Your task to perform on an android device: make emails show in primary in the gmail app Image 0: 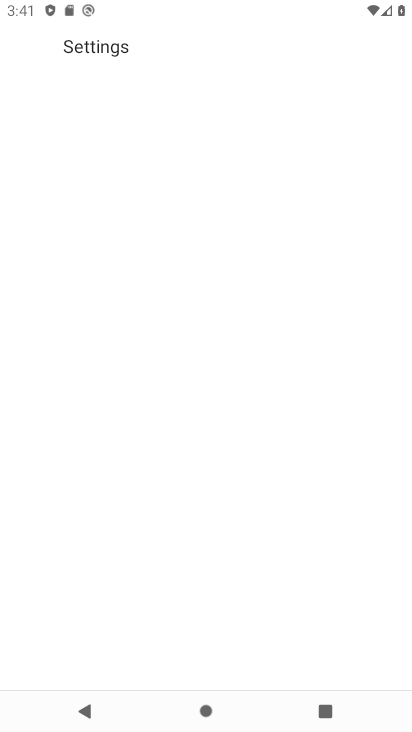
Step 0: drag from (143, 534) to (147, 325)
Your task to perform on an android device: make emails show in primary in the gmail app Image 1: 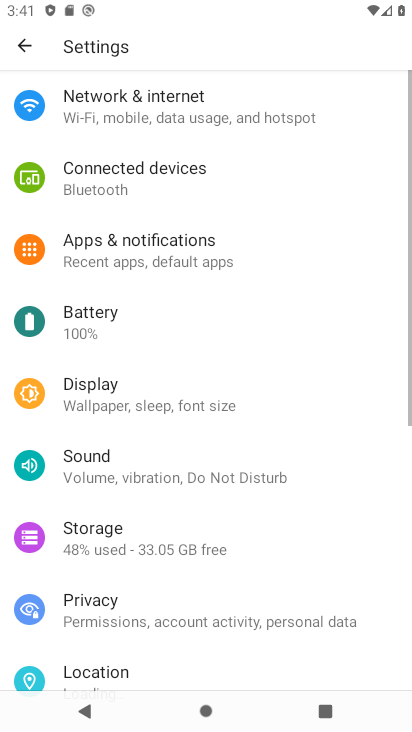
Step 1: press home button
Your task to perform on an android device: make emails show in primary in the gmail app Image 2: 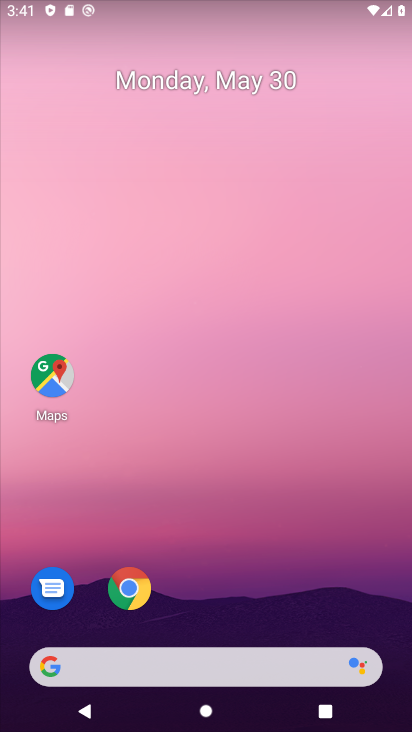
Step 2: drag from (182, 647) to (194, 142)
Your task to perform on an android device: make emails show in primary in the gmail app Image 3: 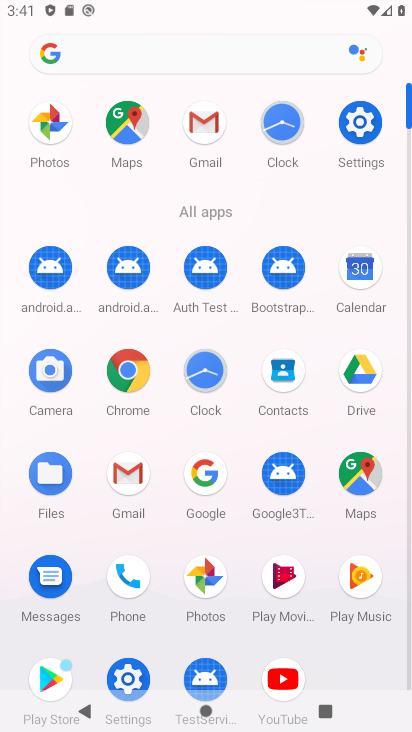
Step 3: click (221, 120)
Your task to perform on an android device: make emails show in primary in the gmail app Image 4: 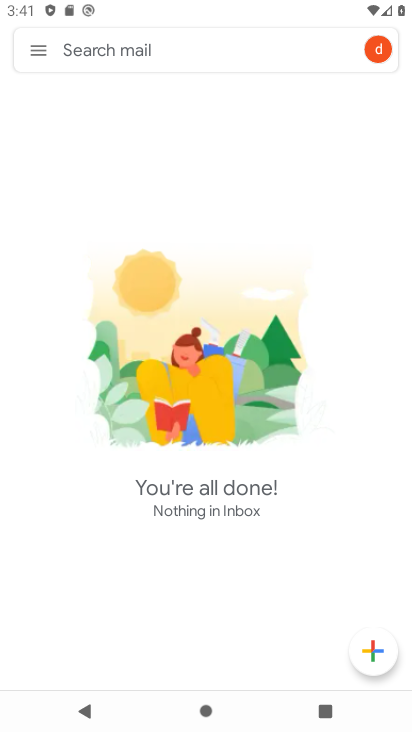
Step 4: click (41, 41)
Your task to perform on an android device: make emails show in primary in the gmail app Image 5: 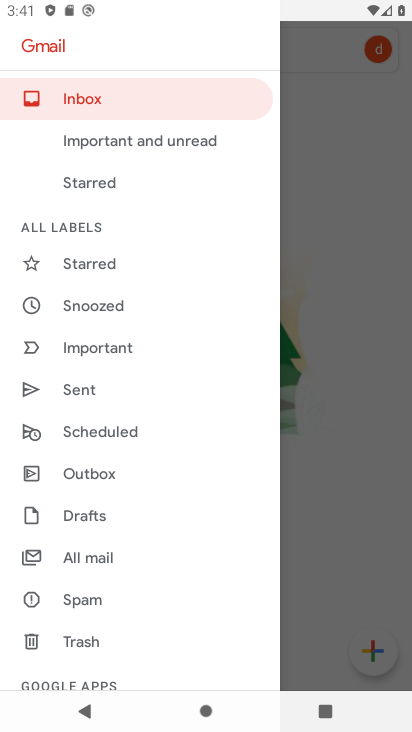
Step 5: drag from (126, 638) to (109, 247)
Your task to perform on an android device: make emails show in primary in the gmail app Image 6: 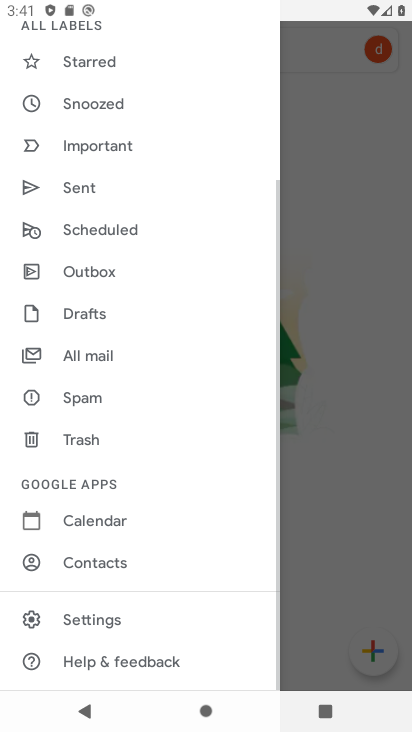
Step 6: click (108, 625)
Your task to perform on an android device: make emails show in primary in the gmail app Image 7: 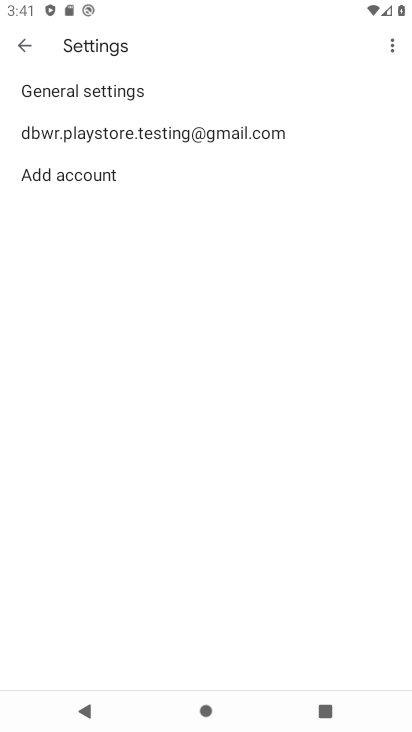
Step 7: click (91, 129)
Your task to perform on an android device: make emails show in primary in the gmail app Image 8: 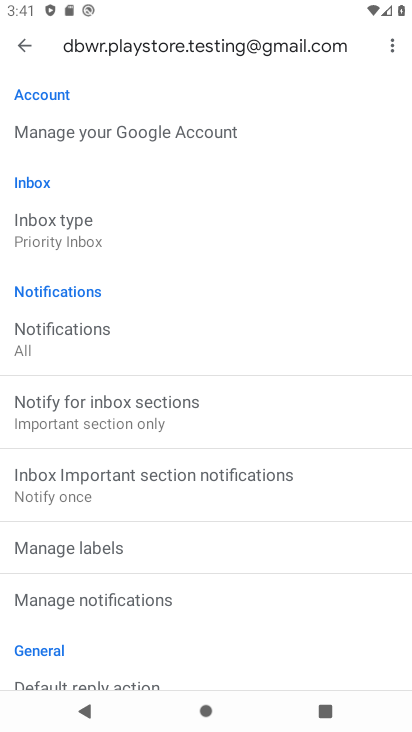
Step 8: click (48, 238)
Your task to perform on an android device: make emails show in primary in the gmail app Image 9: 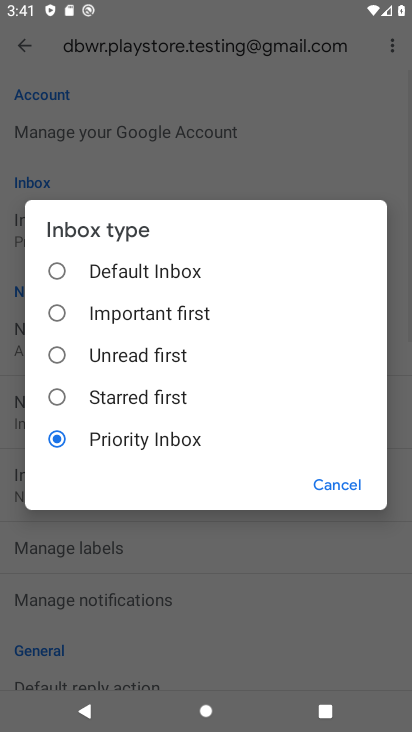
Step 9: click (100, 256)
Your task to perform on an android device: make emails show in primary in the gmail app Image 10: 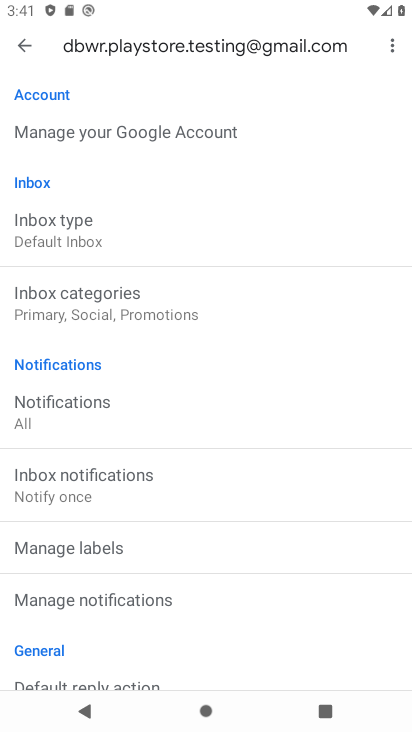
Step 10: click (90, 305)
Your task to perform on an android device: make emails show in primary in the gmail app Image 11: 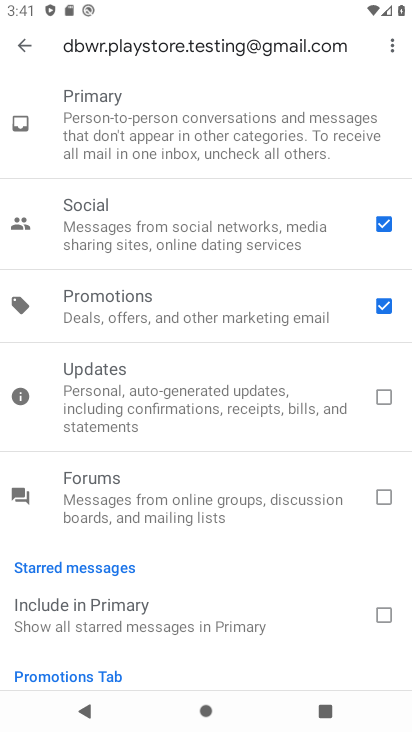
Step 11: click (391, 229)
Your task to perform on an android device: make emails show in primary in the gmail app Image 12: 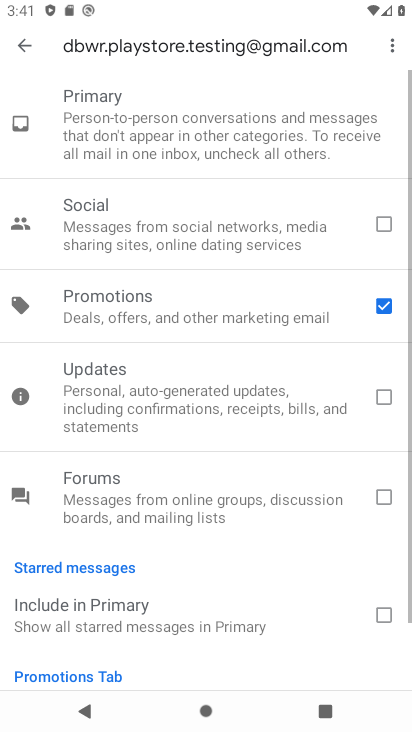
Step 12: click (378, 312)
Your task to perform on an android device: make emails show in primary in the gmail app Image 13: 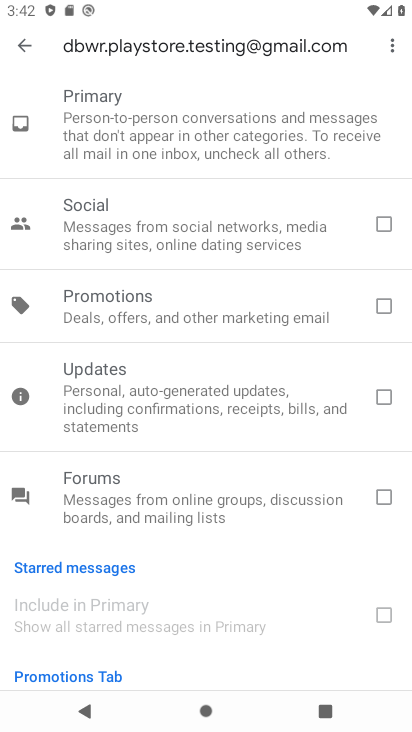
Step 13: click (24, 33)
Your task to perform on an android device: make emails show in primary in the gmail app Image 14: 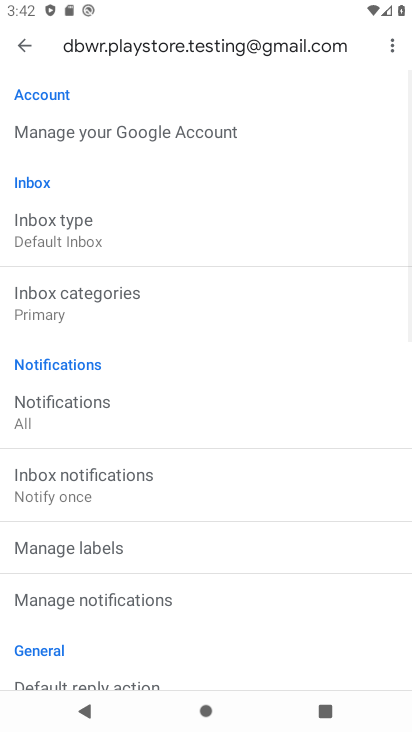
Step 14: task complete